Your task to perform on an android device: See recent photos Image 0: 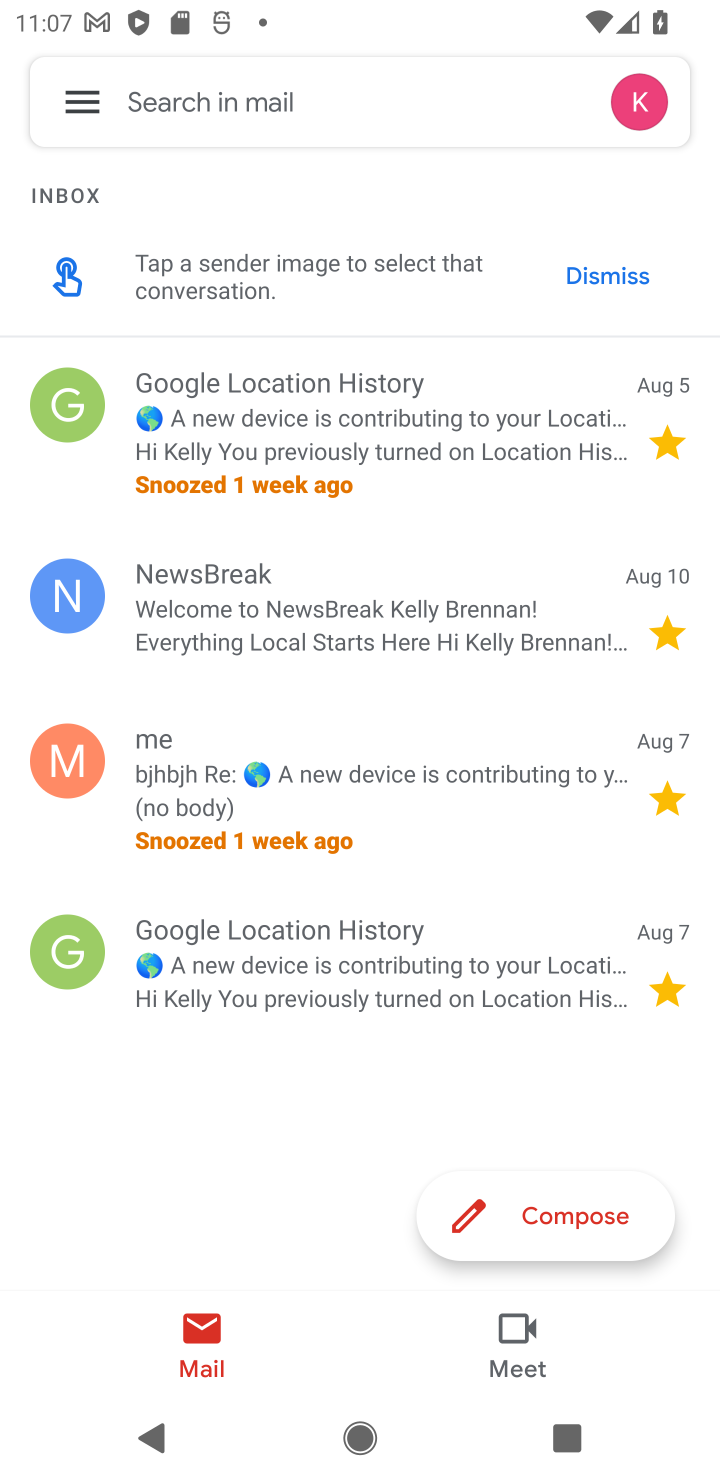
Step 0: press home button
Your task to perform on an android device: See recent photos Image 1: 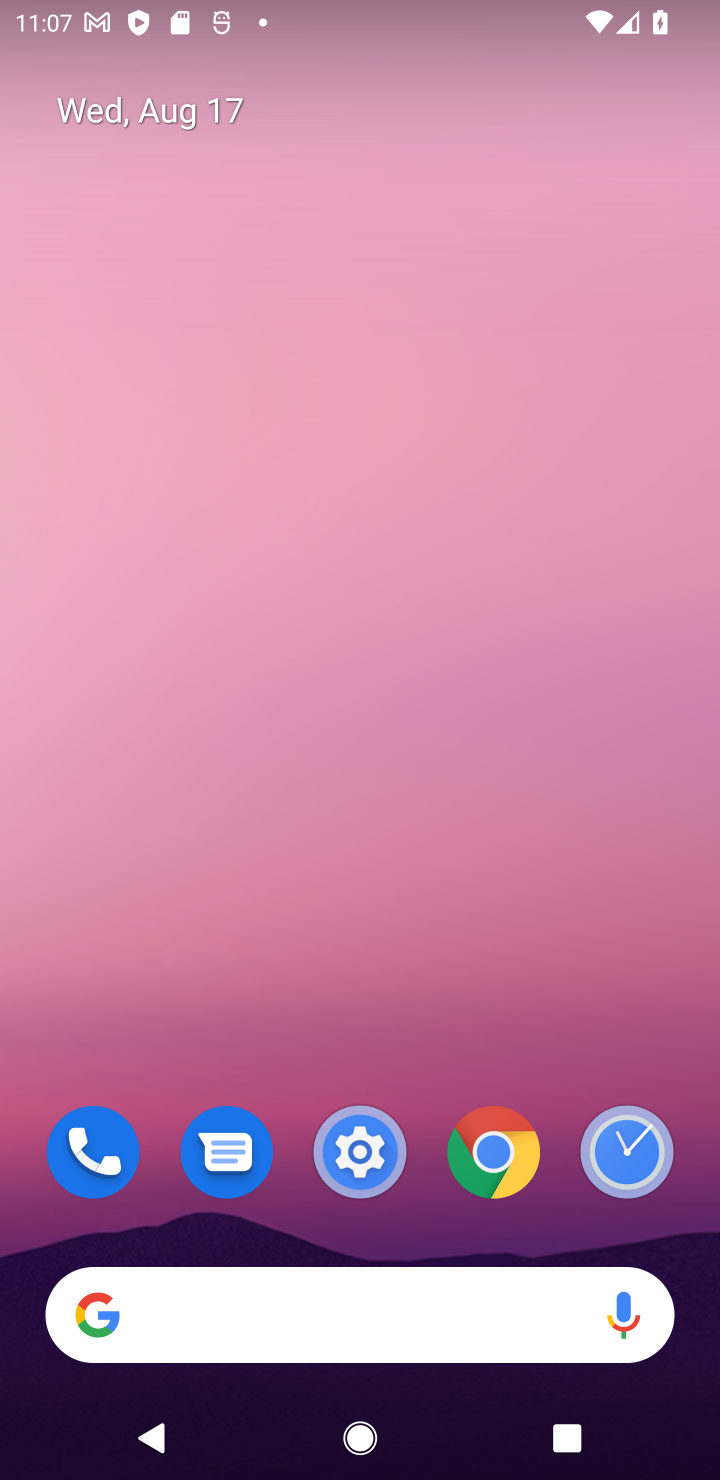
Step 1: drag from (555, 1199) to (373, 126)
Your task to perform on an android device: See recent photos Image 2: 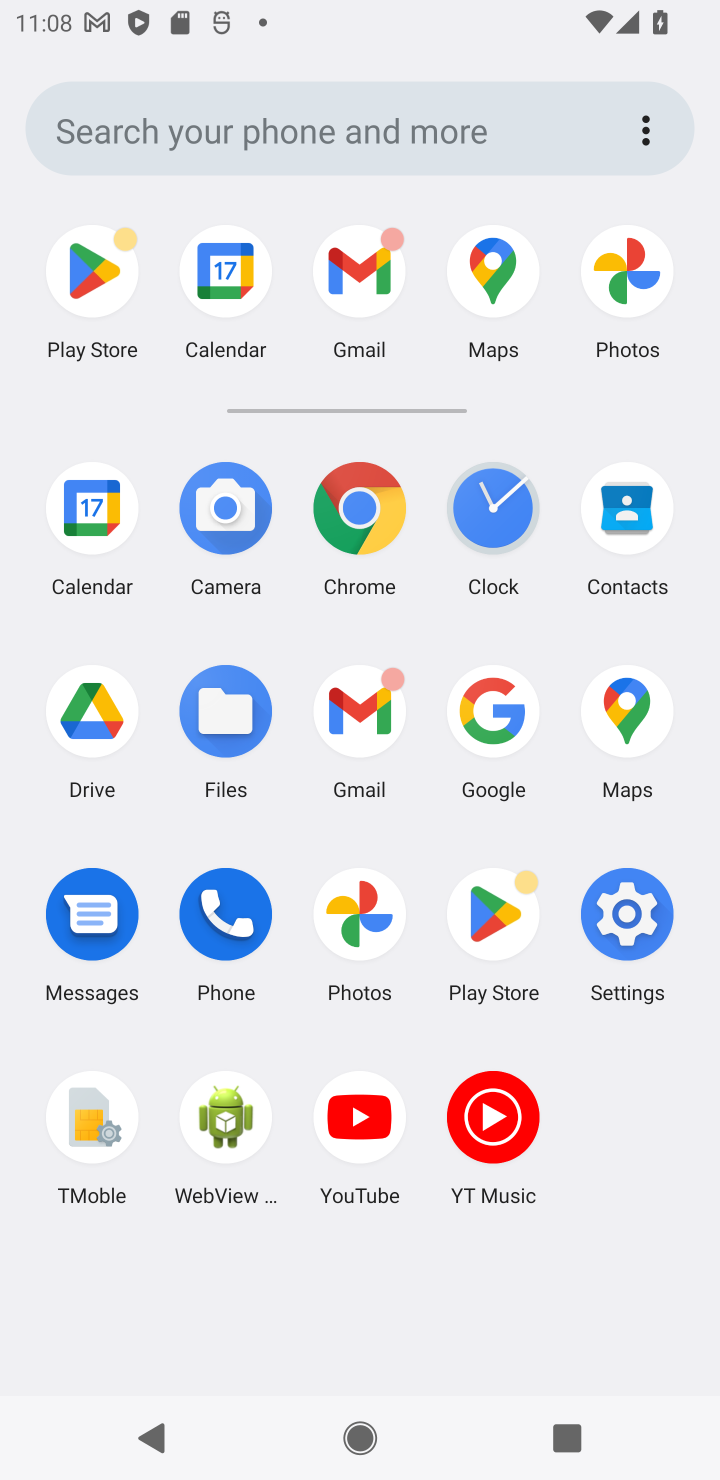
Step 2: click (354, 926)
Your task to perform on an android device: See recent photos Image 3: 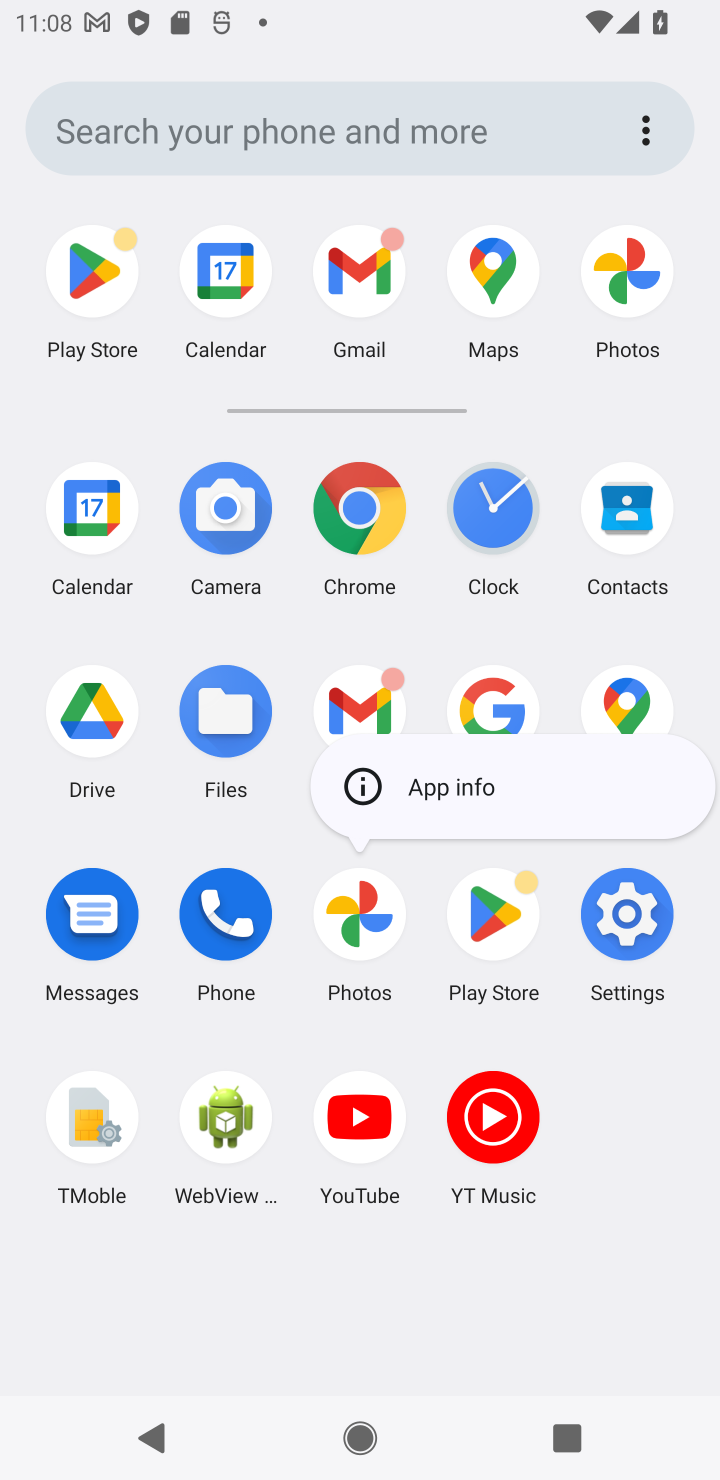
Step 3: click (354, 926)
Your task to perform on an android device: See recent photos Image 4: 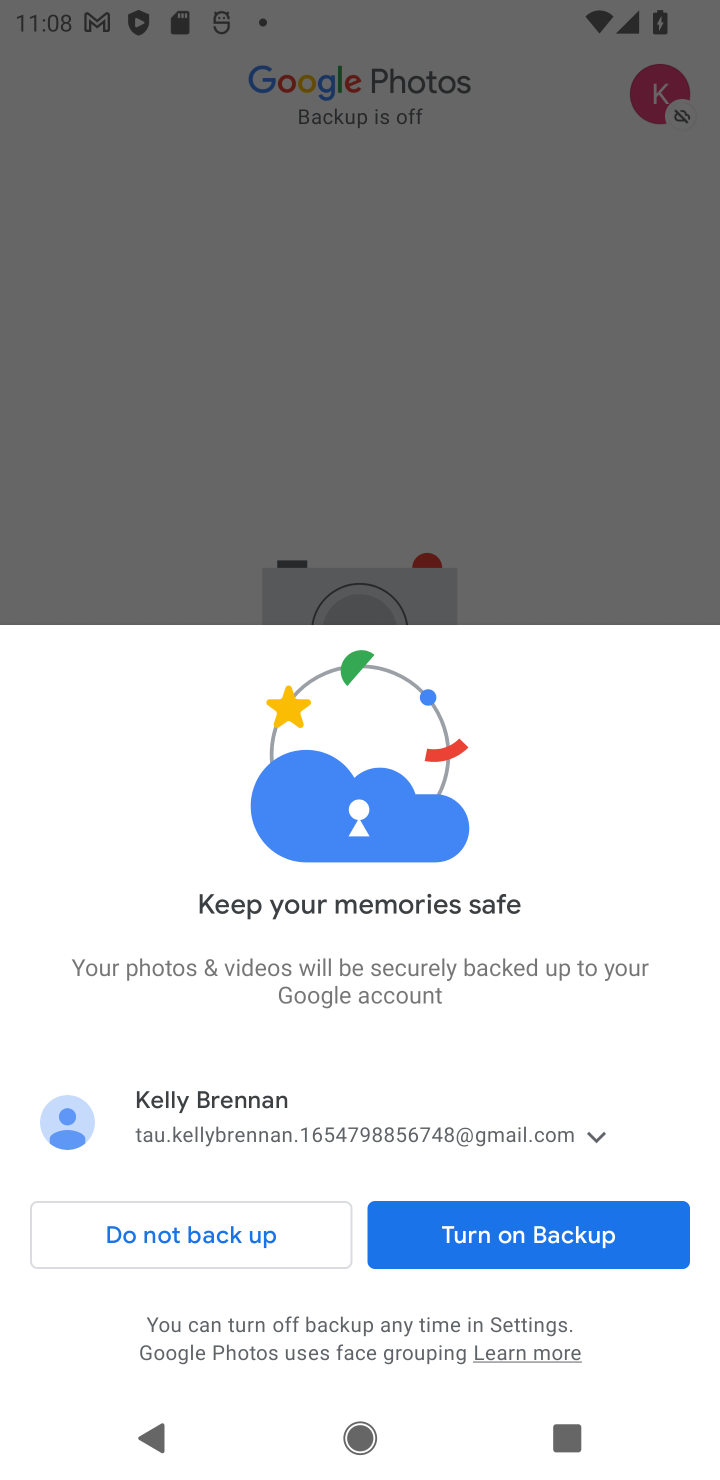
Step 4: click (542, 1233)
Your task to perform on an android device: See recent photos Image 5: 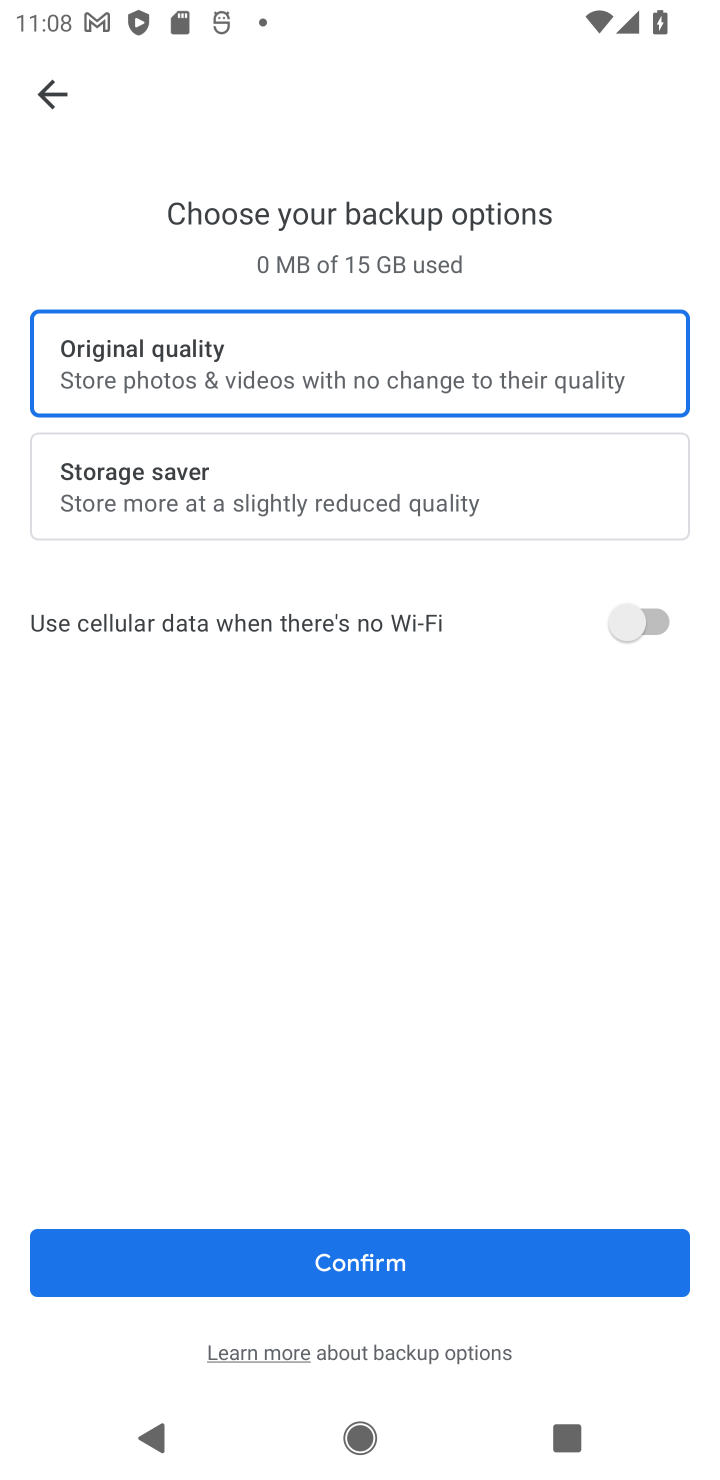
Step 5: click (377, 1265)
Your task to perform on an android device: See recent photos Image 6: 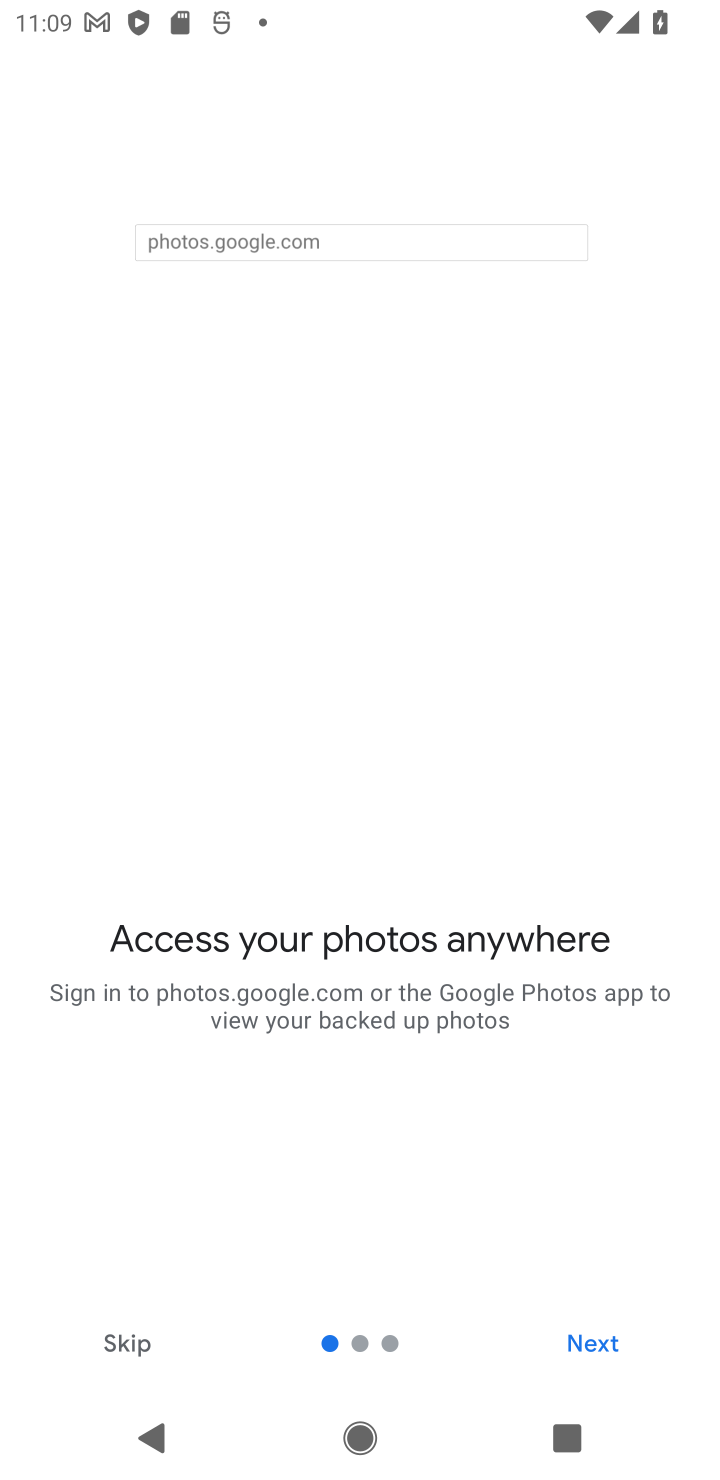
Step 6: click (592, 1332)
Your task to perform on an android device: See recent photos Image 7: 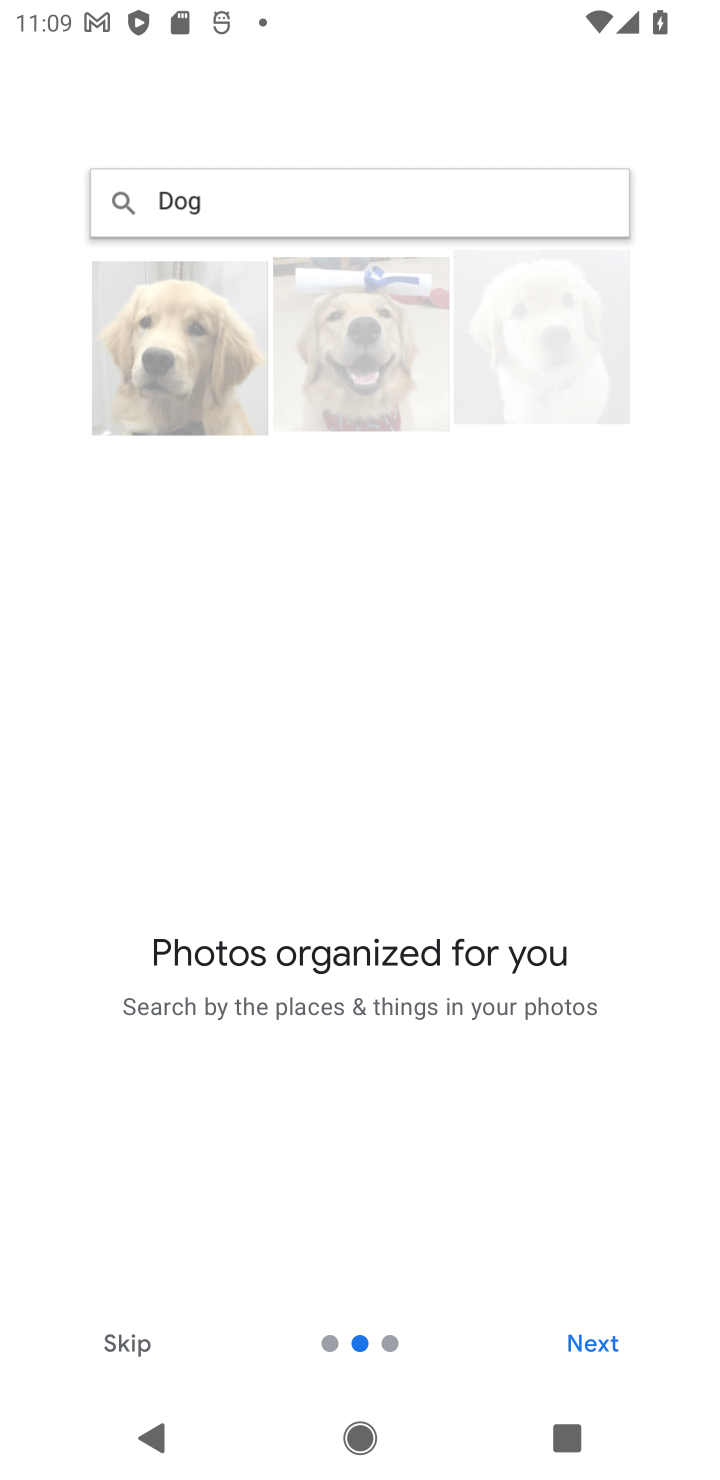
Step 7: click (592, 1332)
Your task to perform on an android device: See recent photos Image 8: 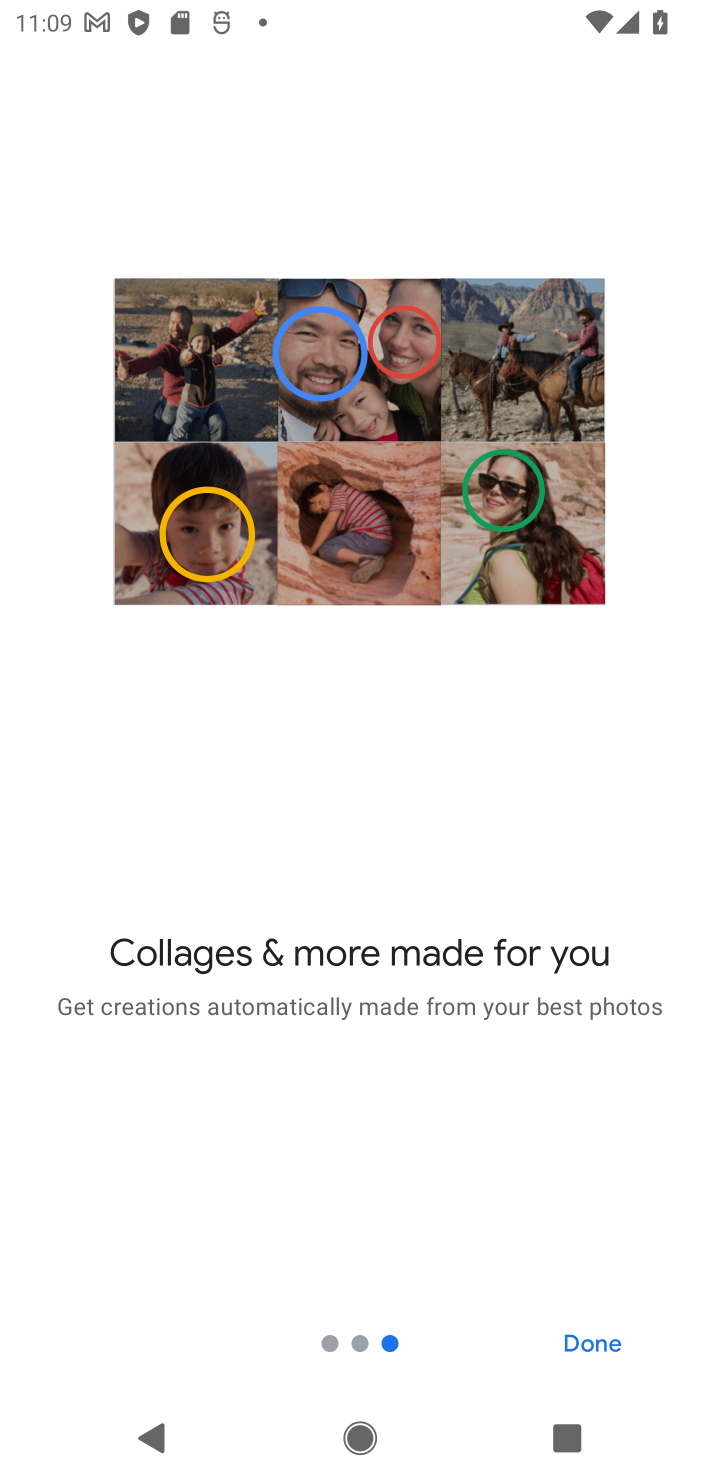
Step 8: click (592, 1332)
Your task to perform on an android device: See recent photos Image 9: 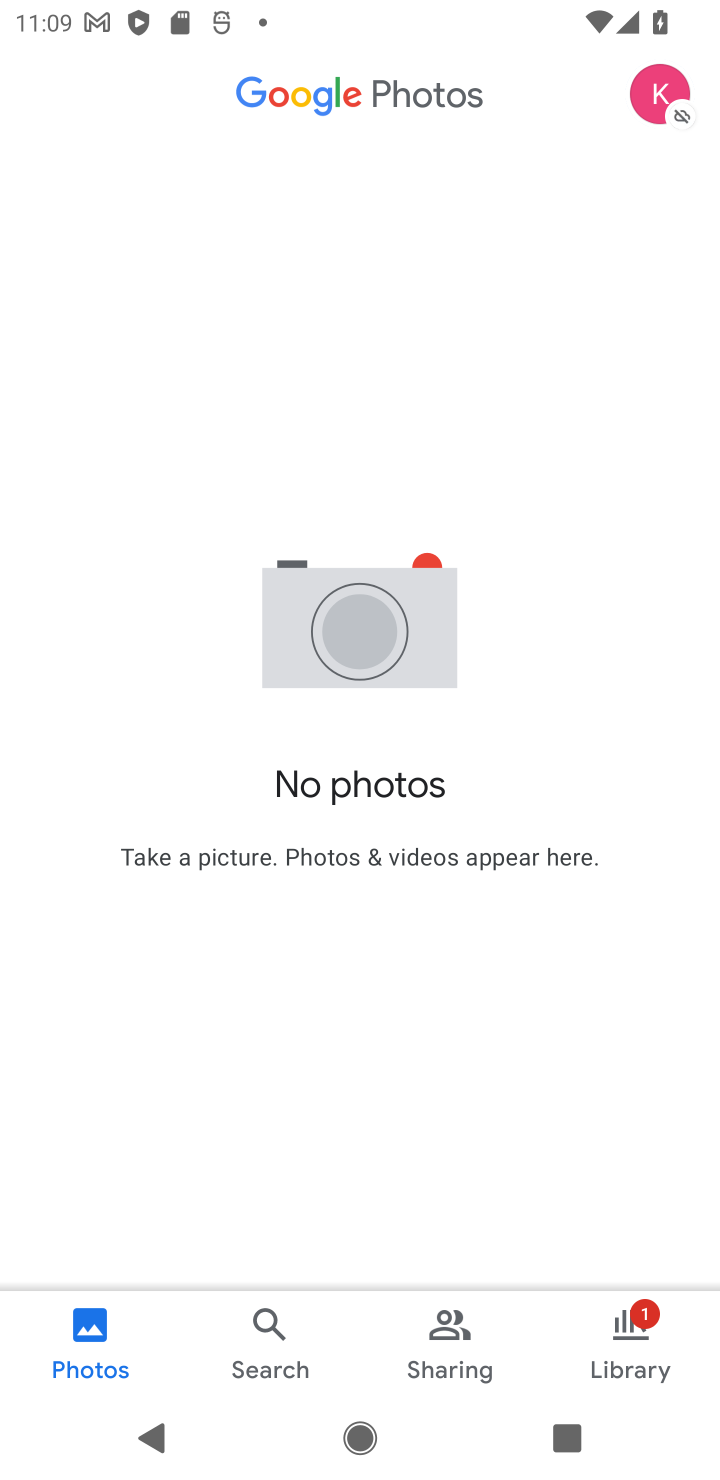
Step 9: click (592, 1332)
Your task to perform on an android device: See recent photos Image 10: 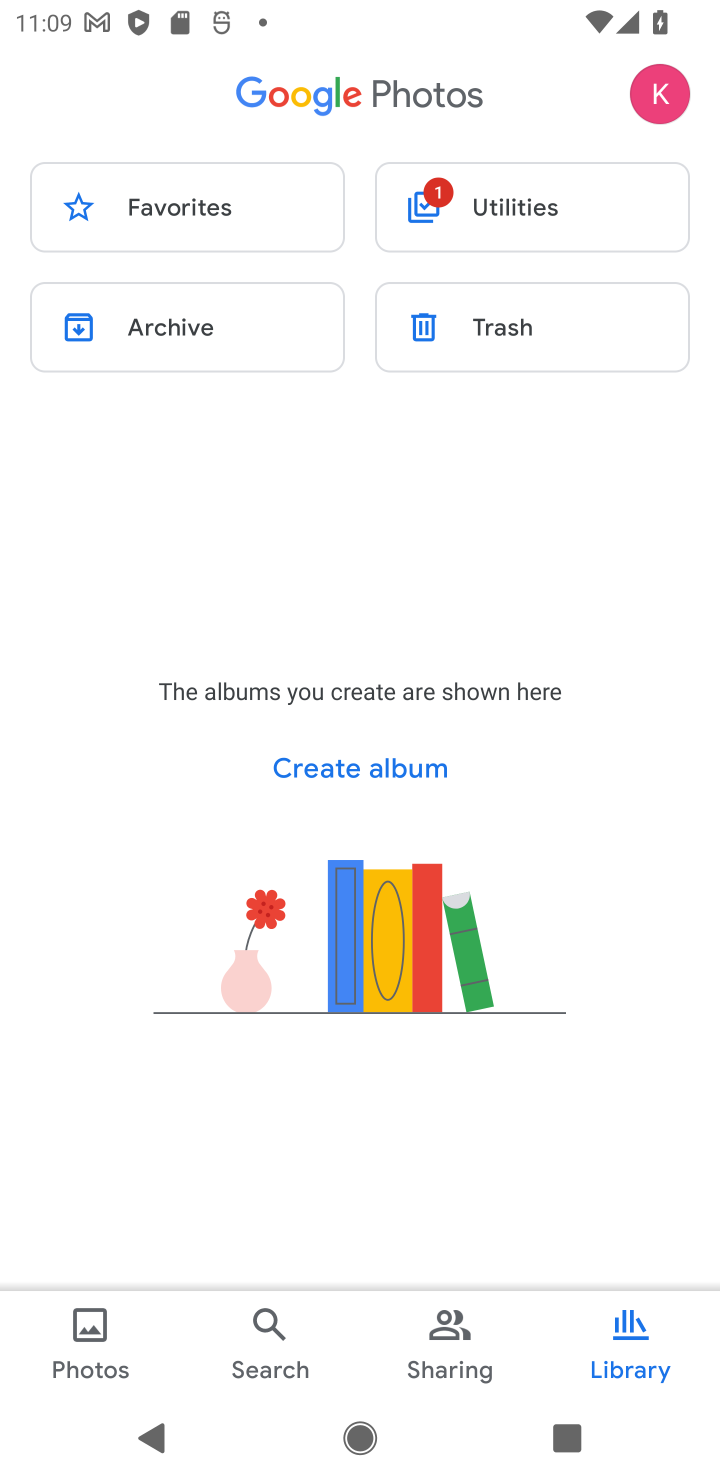
Step 10: task complete